Your task to perform on an android device: stop showing notifications on the lock screen Image 0: 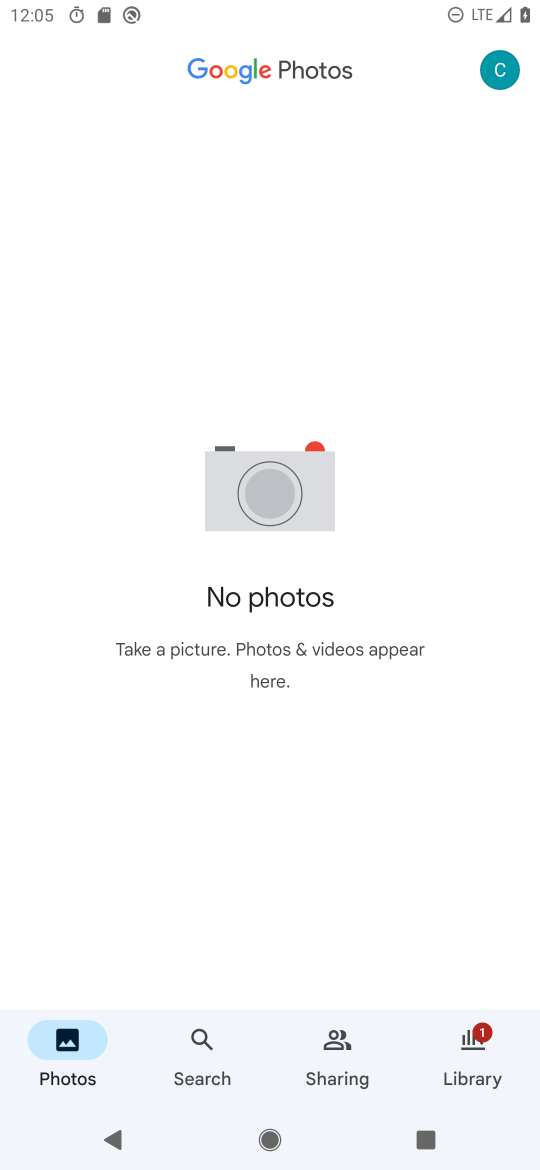
Step 0: press home button
Your task to perform on an android device: stop showing notifications on the lock screen Image 1: 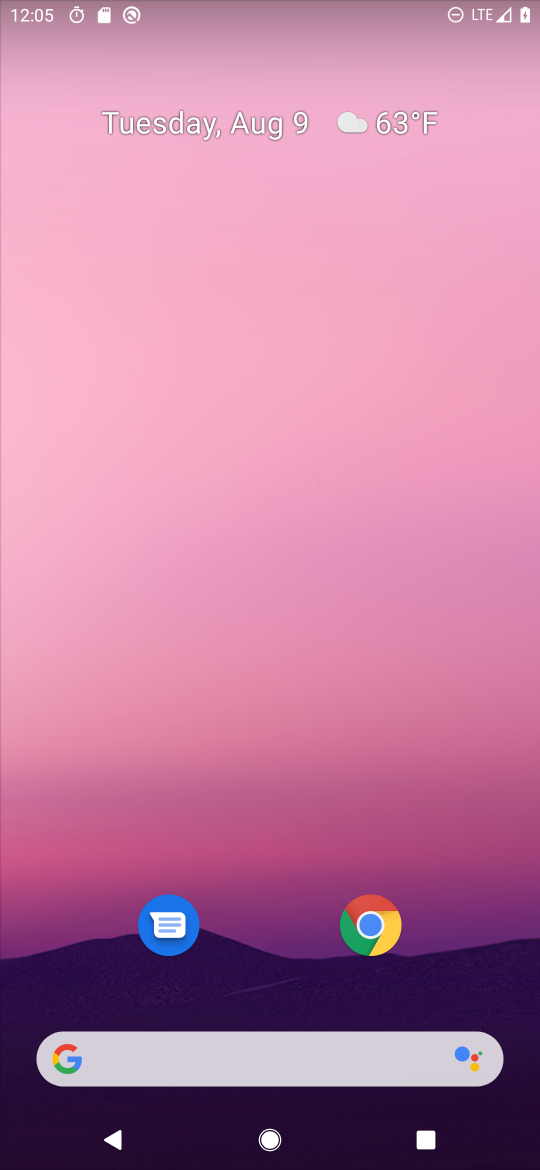
Step 1: drag from (243, 893) to (383, 182)
Your task to perform on an android device: stop showing notifications on the lock screen Image 2: 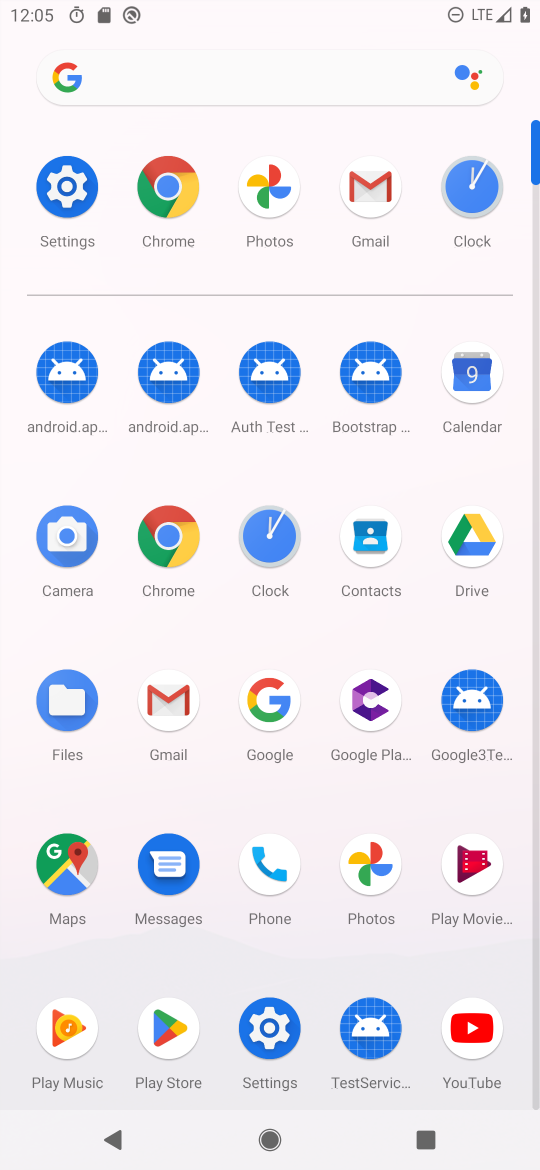
Step 2: click (276, 1032)
Your task to perform on an android device: stop showing notifications on the lock screen Image 3: 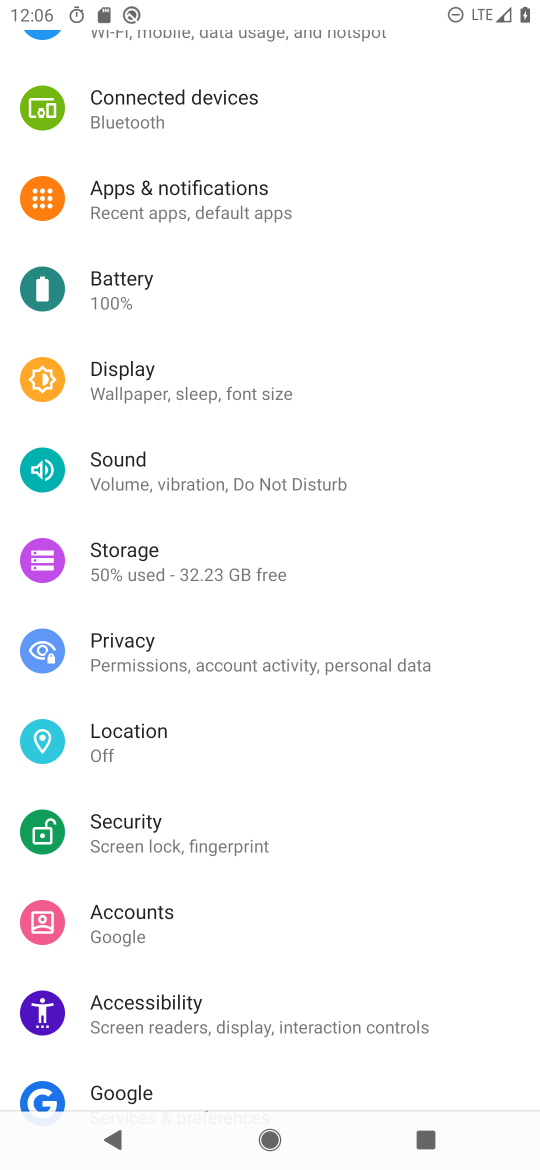
Step 3: click (209, 217)
Your task to perform on an android device: stop showing notifications on the lock screen Image 4: 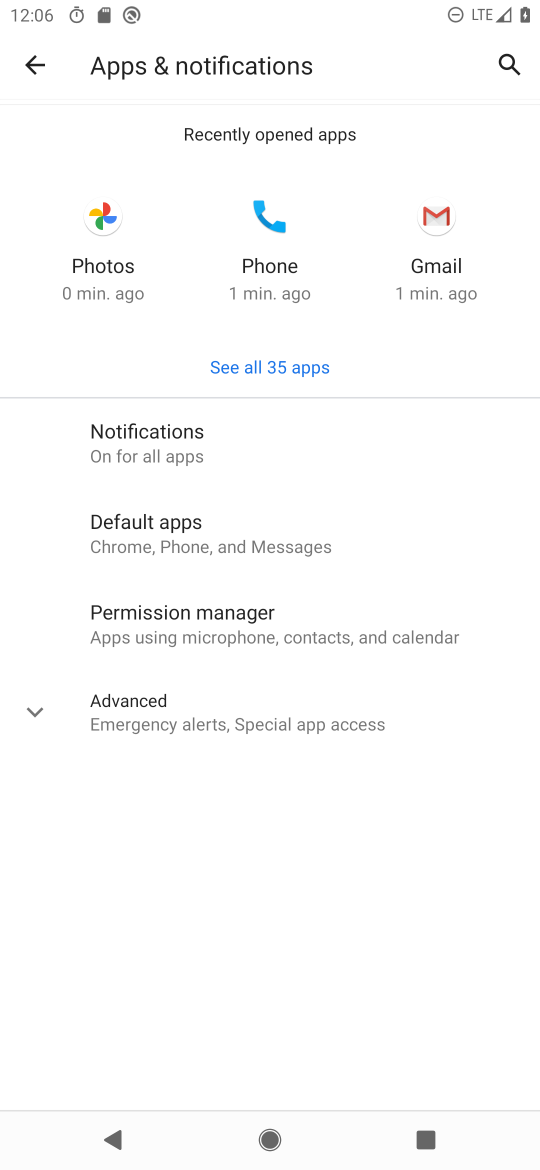
Step 4: click (118, 446)
Your task to perform on an android device: stop showing notifications on the lock screen Image 5: 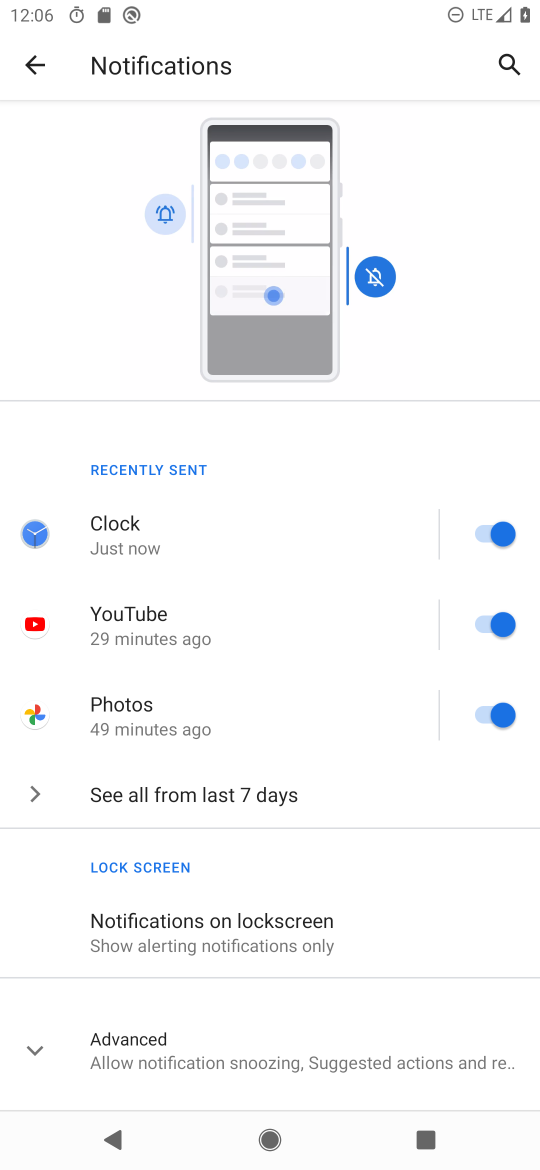
Step 5: drag from (172, 1009) to (272, 639)
Your task to perform on an android device: stop showing notifications on the lock screen Image 6: 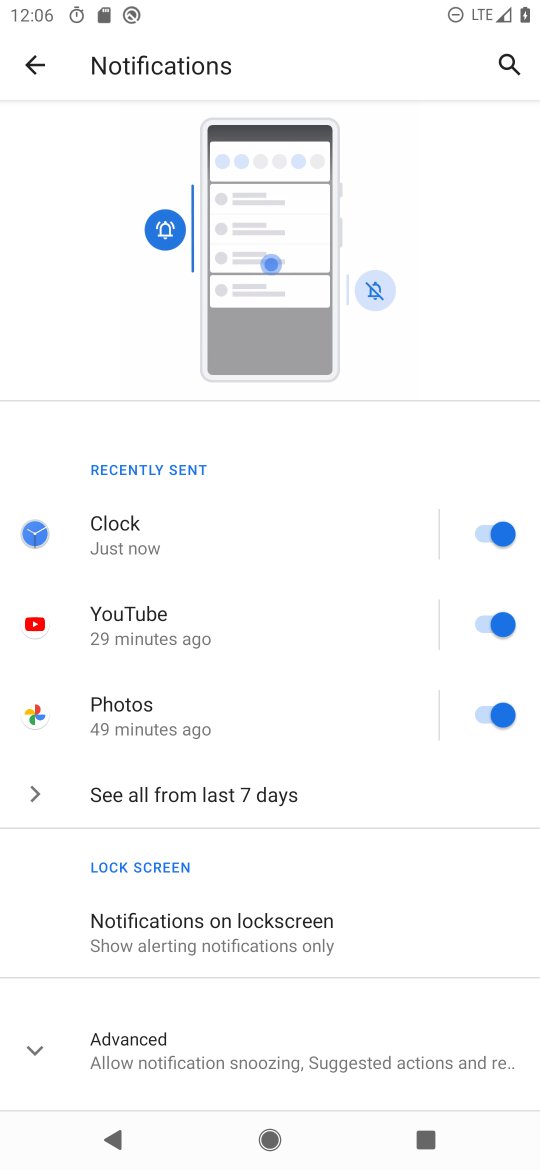
Step 6: click (184, 917)
Your task to perform on an android device: stop showing notifications on the lock screen Image 7: 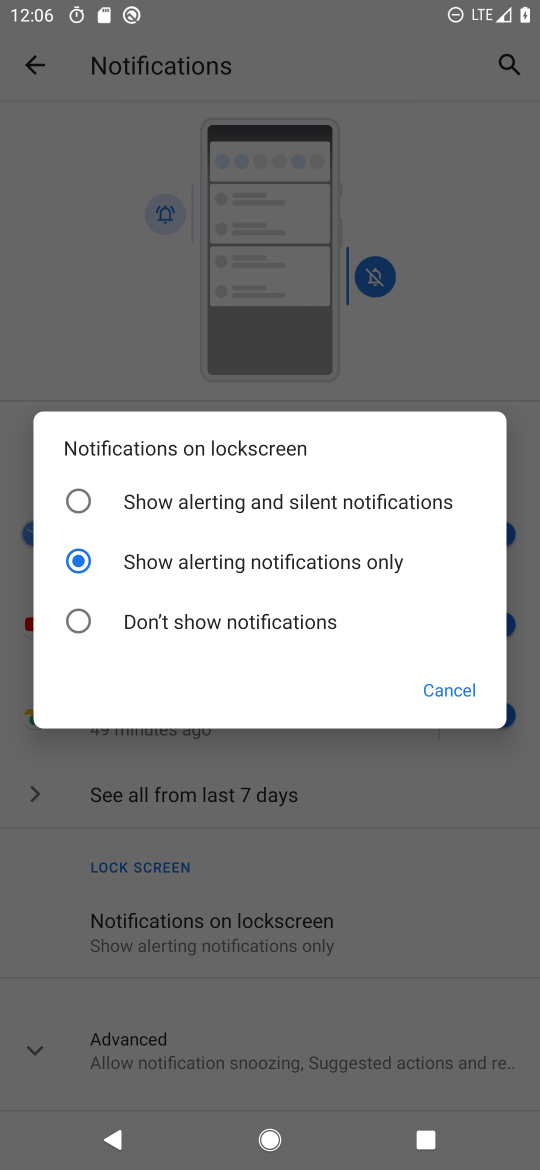
Step 7: click (251, 621)
Your task to perform on an android device: stop showing notifications on the lock screen Image 8: 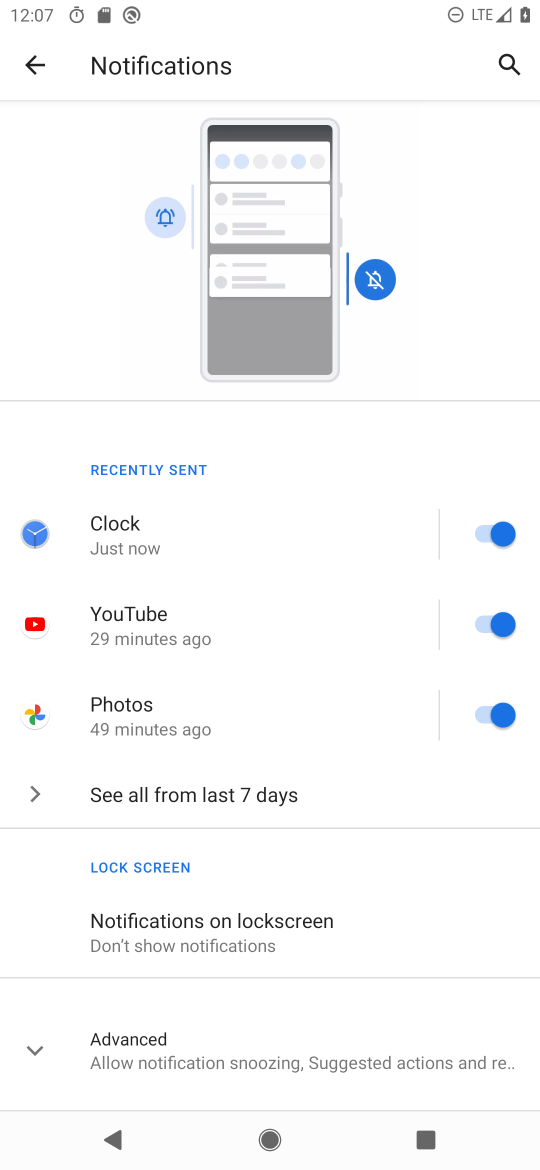
Step 8: task complete